Your task to perform on an android device: open the mobile data screen to see how much data has been used Image 0: 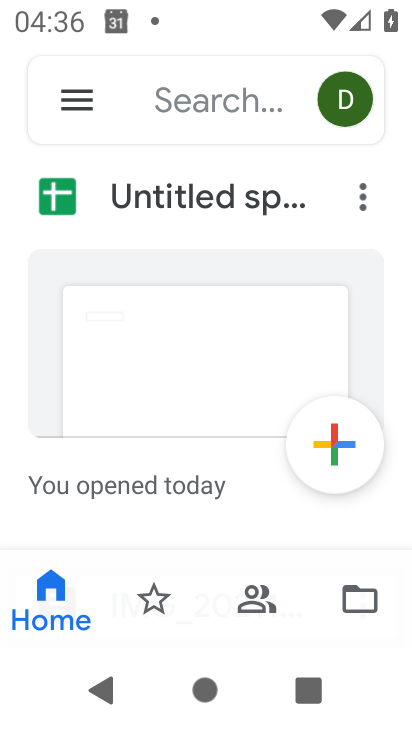
Step 0: press home button
Your task to perform on an android device: open the mobile data screen to see how much data has been used Image 1: 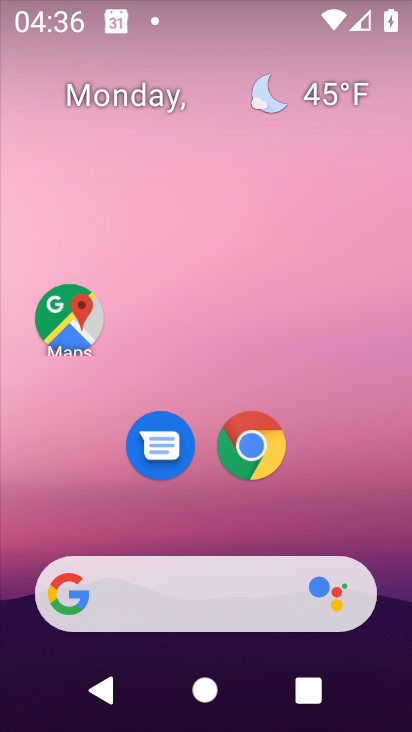
Step 1: drag from (352, 552) to (312, 126)
Your task to perform on an android device: open the mobile data screen to see how much data has been used Image 2: 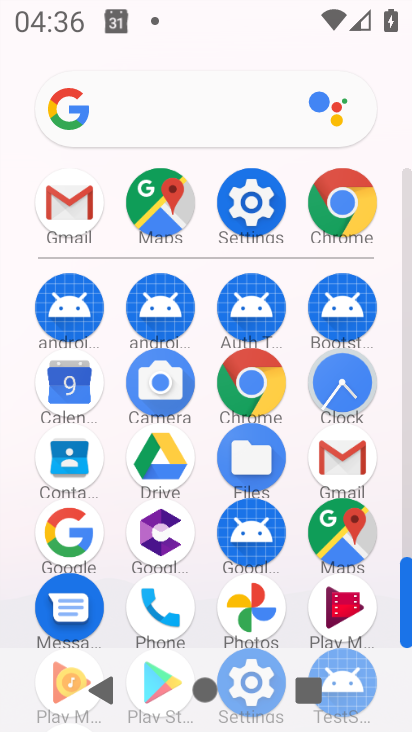
Step 2: click (233, 186)
Your task to perform on an android device: open the mobile data screen to see how much data has been used Image 3: 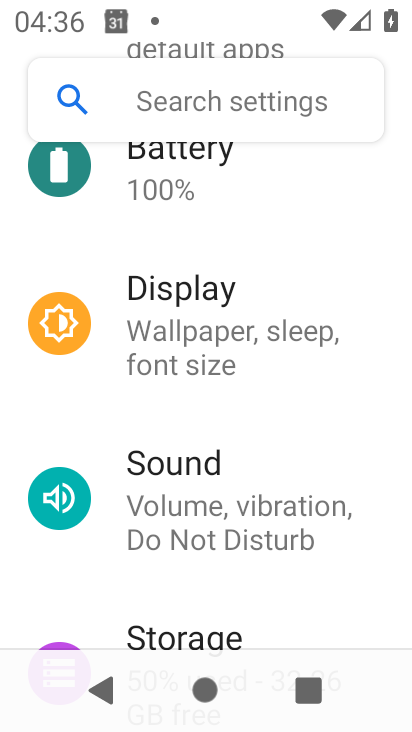
Step 3: drag from (190, 285) to (274, 545)
Your task to perform on an android device: open the mobile data screen to see how much data has been used Image 4: 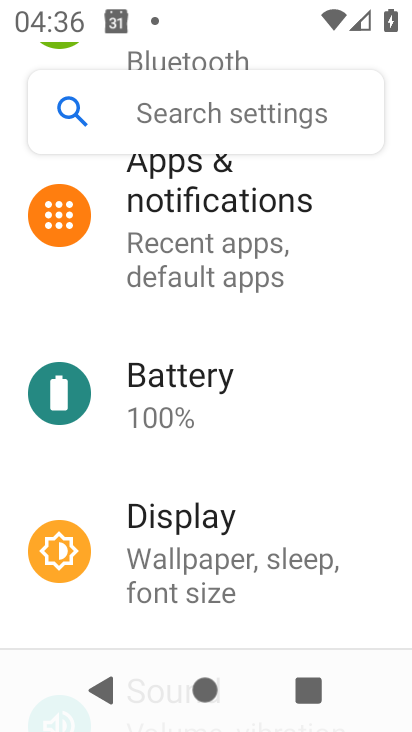
Step 4: drag from (282, 246) to (305, 532)
Your task to perform on an android device: open the mobile data screen to see how much data has been used Image 5: 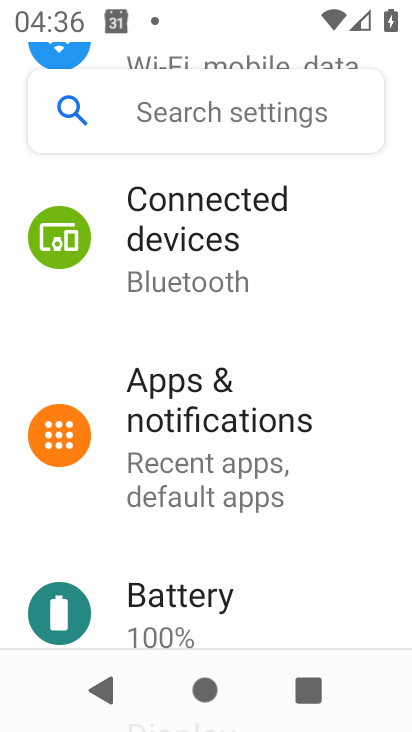
Step 5: drag from (279, 272) to (283, 587)
Your task to perform on an android device: open the mobile data screen to see how much data has been used Image 6: 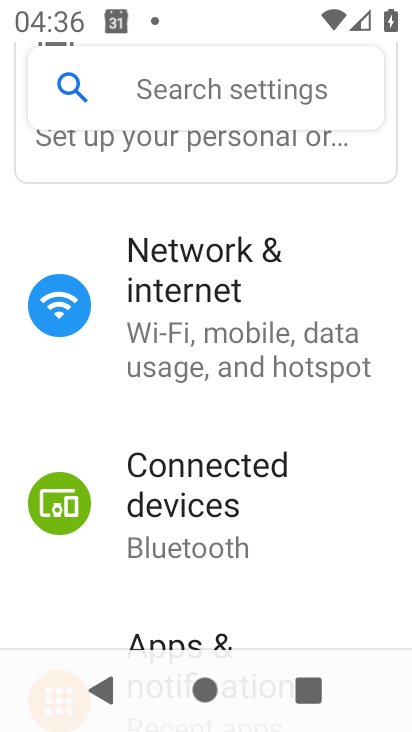
Step 6: click (280, 358)
Your task to perform on an android device: open the mobile data screen to see how much data has been used Image 7: 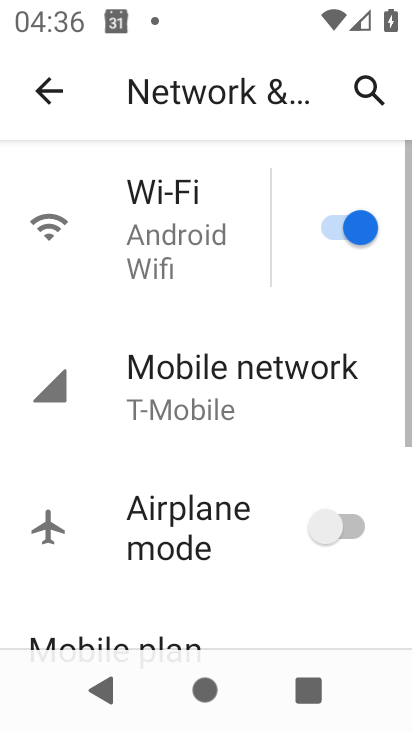
Step 7: click (240, 366)
Your task to perform on an android device: open the mobile data screen to see how much data has been used Image 8: 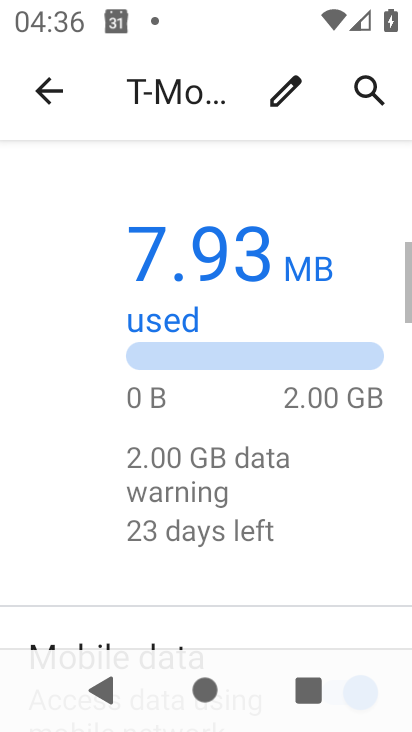
Step 8: drag from (189, 569) to (214, 155)
Your task to perform on an android device: open the mobile data screen to see how much data has been used Image 9: 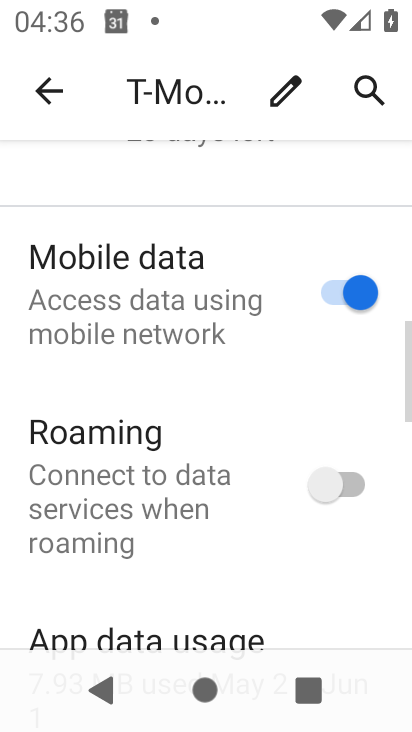
Step 9: drag from (176, 565) to (207, 198)
Your task to perform on an android device: open the mobile data screen to see how much data has been used Image 10: 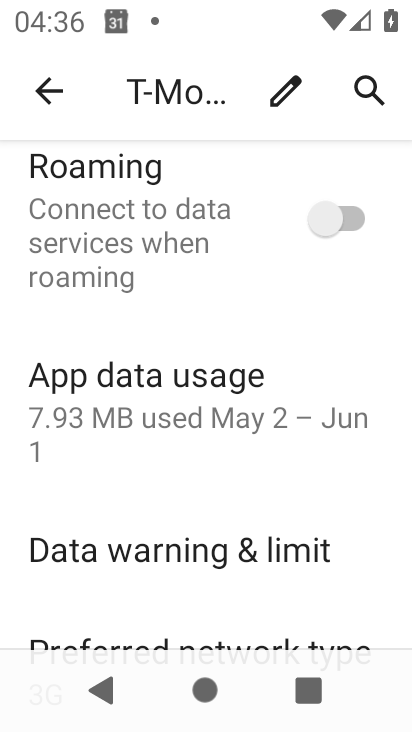
Step 10: click (221, 429)
Your task to perform on an android device: open the mobile data screen to see how much data has been used Image 11: 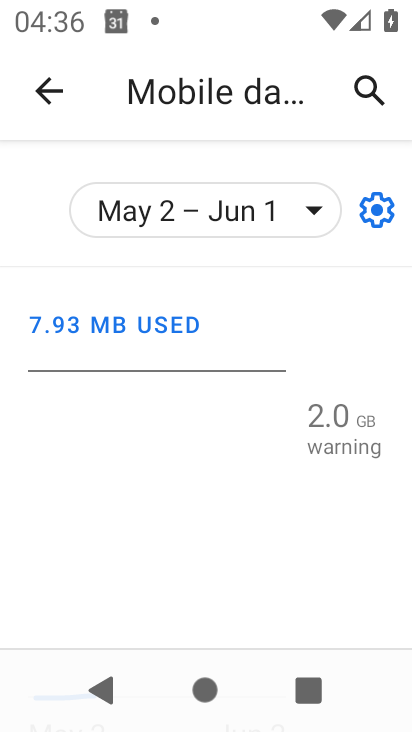
Step 11: task complete